Your task to perform on an android device: Open the map Image 0: 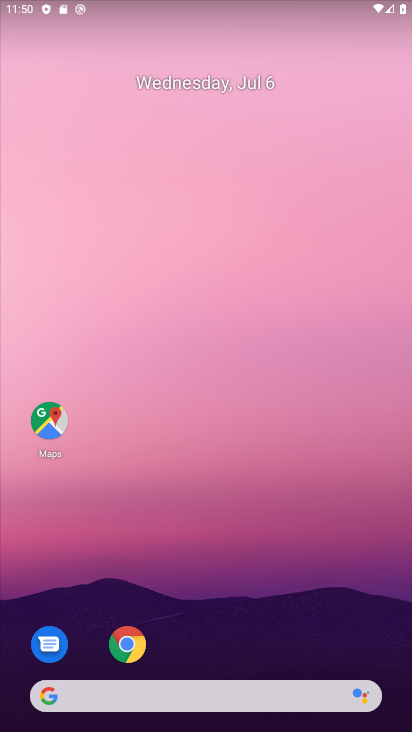
Step 0: click (51, 435)
Your task to perform on an android device: Open the map Image 1: 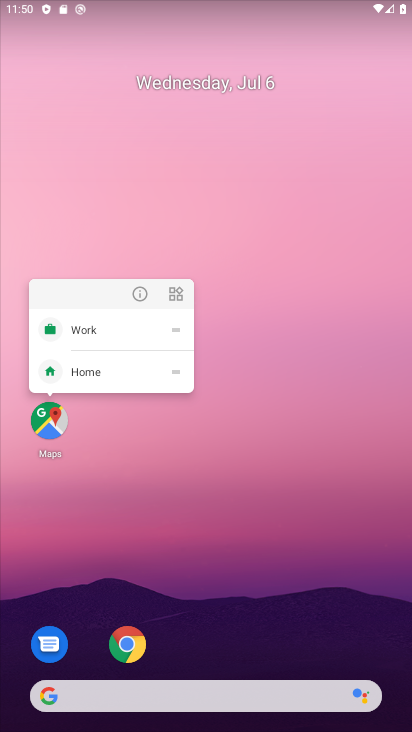
Step 1: click (50, 433)
Your task to perform on an android device: Open the map Image 2: 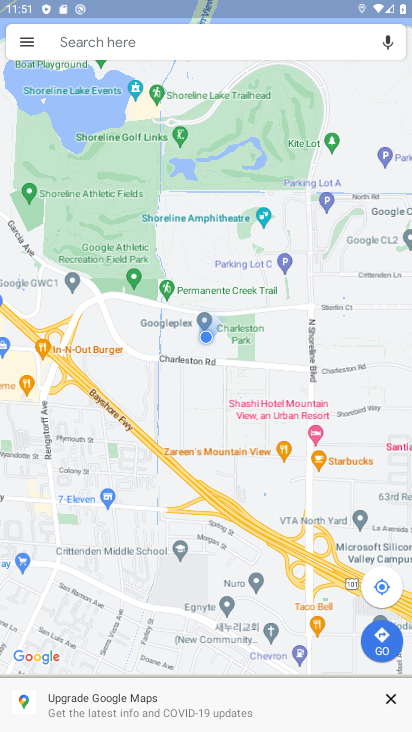
Step 2: task complete